Your task to perform on an android device: change the clock display to digital Image 0: 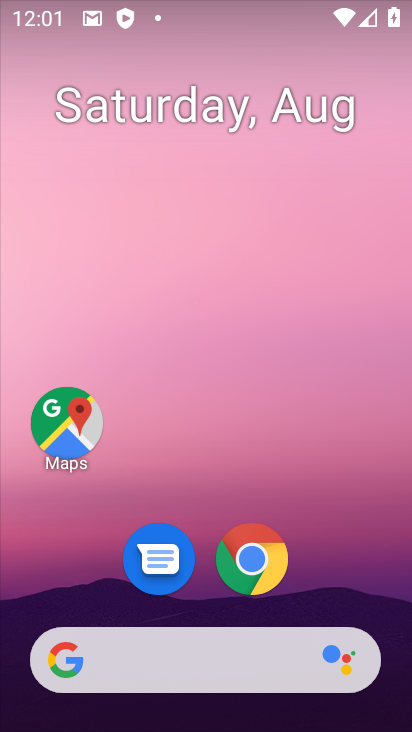
Step 0: drag from (164, 731) to (269, 143)
Your task to perform on an android device: change the clock display to digital Image 1: 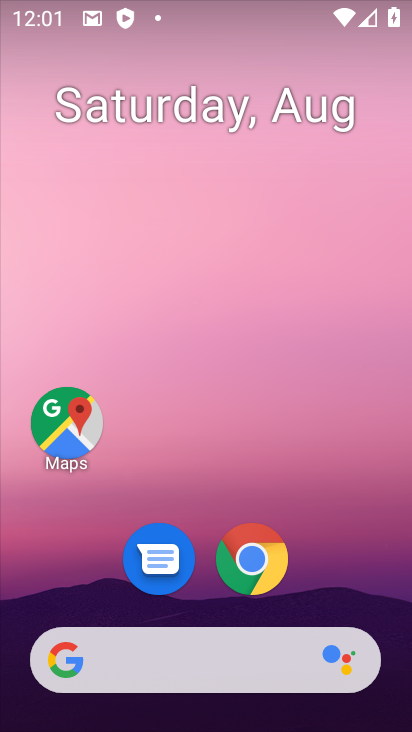
Step 1: drag from (225, 534) to (258, 32)
Your task to perform on an android device: change the clock display to digital Image 2: 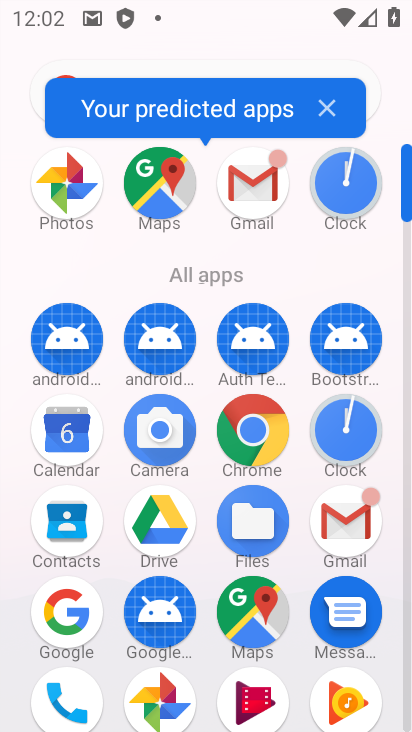
Step 2: click (337, 198)
Your task to perform on an android device: change the clock display to digital Image 3: 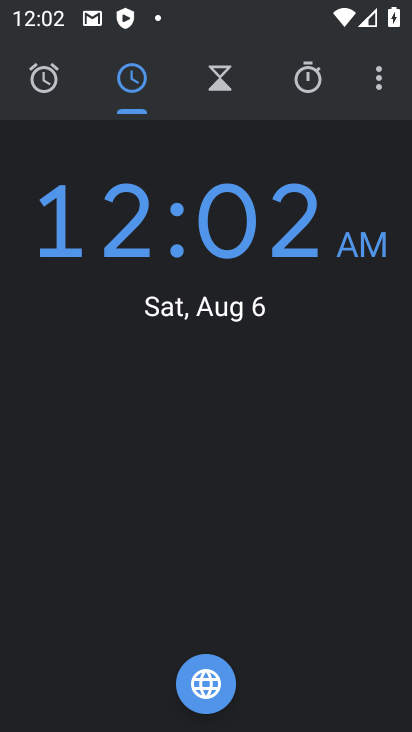
Step 3: click (382, 80)
Your task to perform on an android device: change the clock display to digital Image 4: 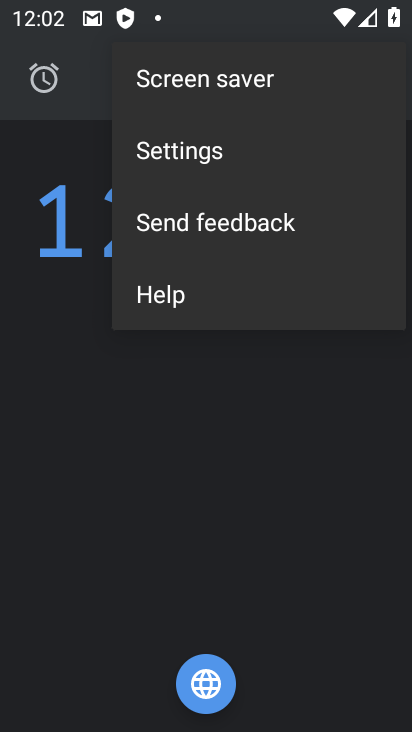
Step 4: click (249, 151)
Your task to perform on an android device: change the clock display to digital Image 5: 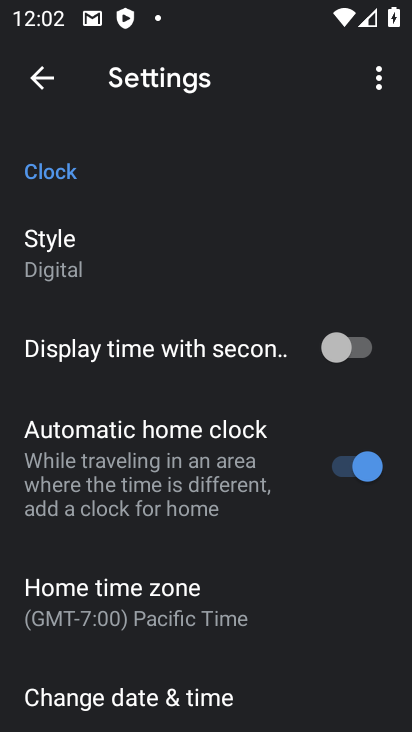
Step 5: click (70, 271)
Your task to perform on an android device: change the clock display to digital Image 6: 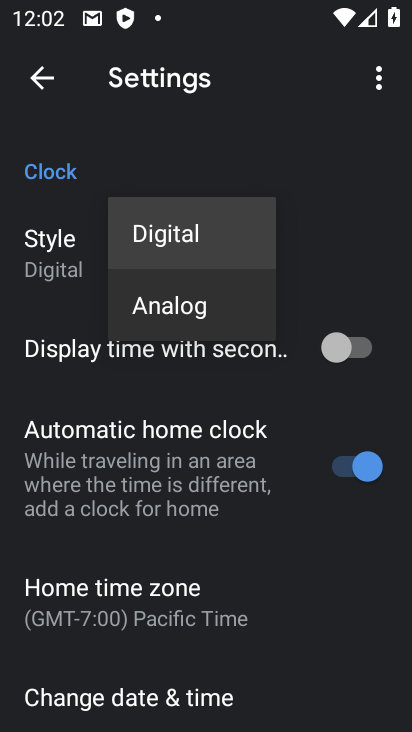
Step 6: task complete